Your task to perform on an android device: change alarm snooze length Image 0: 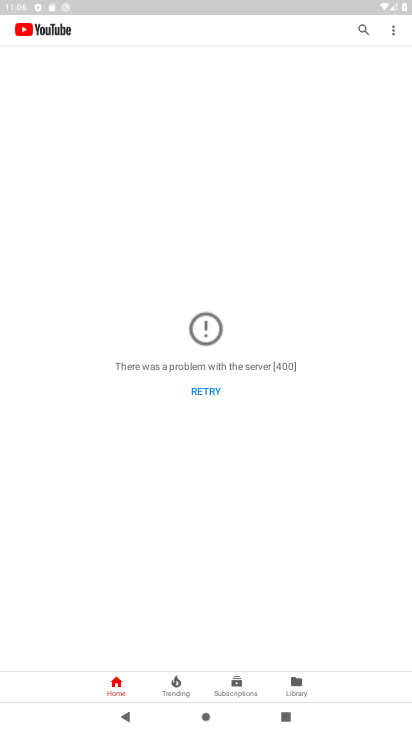
Step 0: press home button
Your task to perform on an android device: change alarm snooze length Image 1: 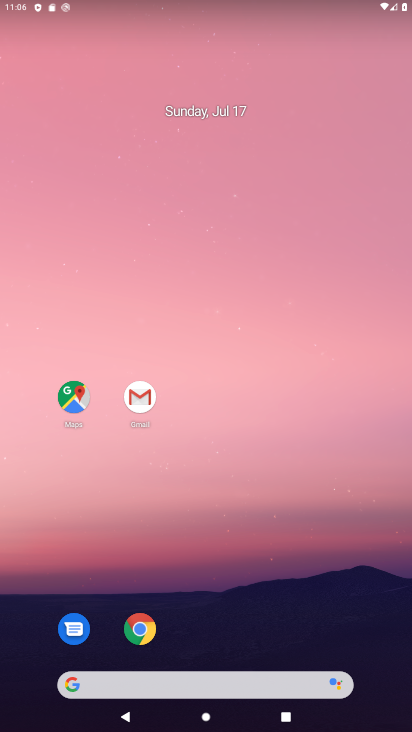
Step 1: drag from (396, 718) to (294, 69)
Your task to perform on an android device: change alarm snooze length Image 2: 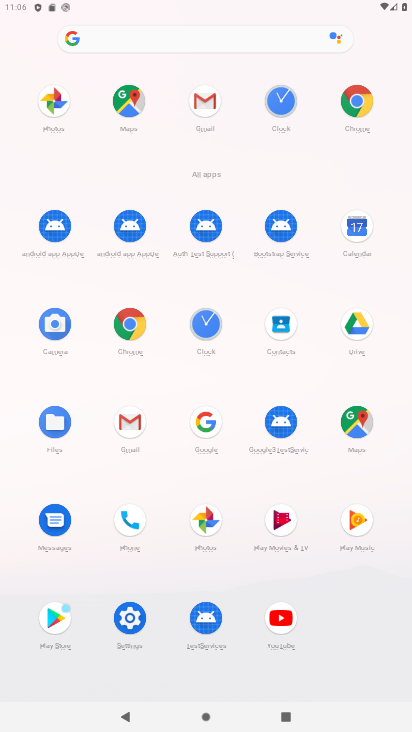
Step 2: click (209, 324)
Your task to perform on an android device: change alarm snooze length Image 3: 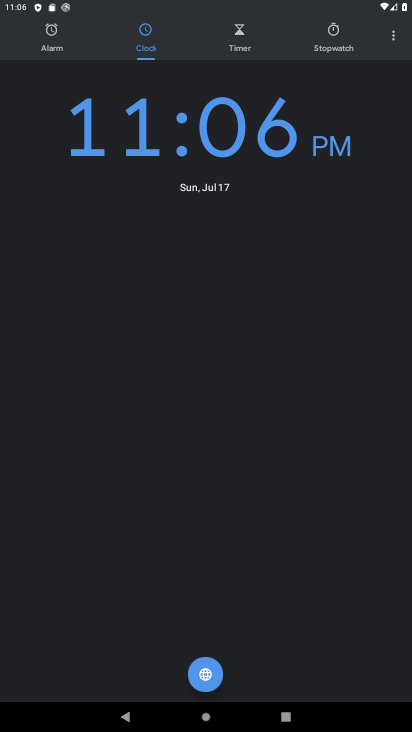
Step 3: click (395, 45)
Your task to perform on an android device: change alarm snooze length Image 4: 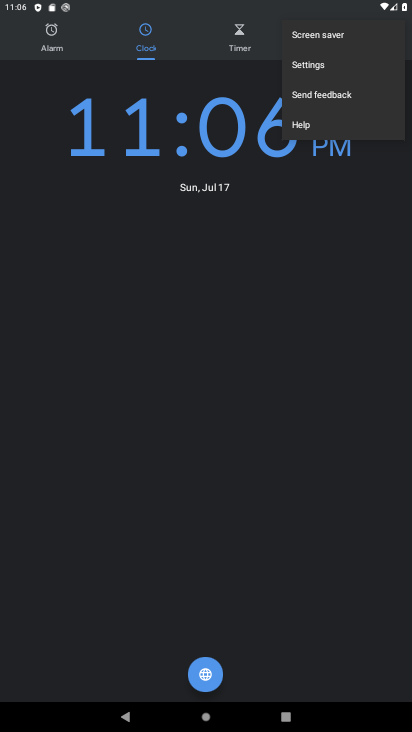
Step 4: click (331, 61)
Your task to perform on an android device: change alarm snooze length Image 5: 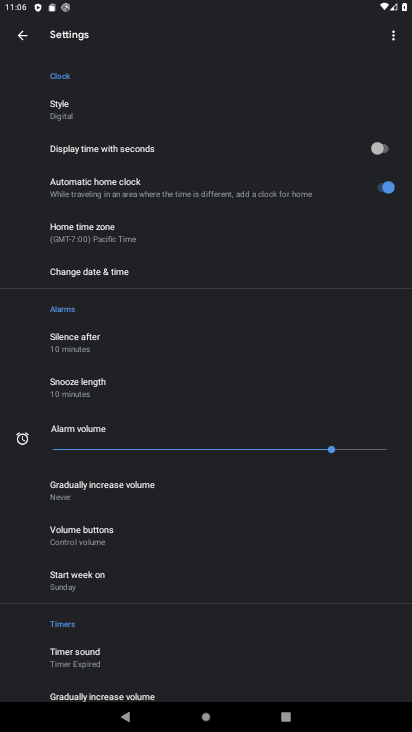
Step 5: drag from (139, 662) to (98, 300)
Your task to perform on an android device: change alarm snooze length Image 6: 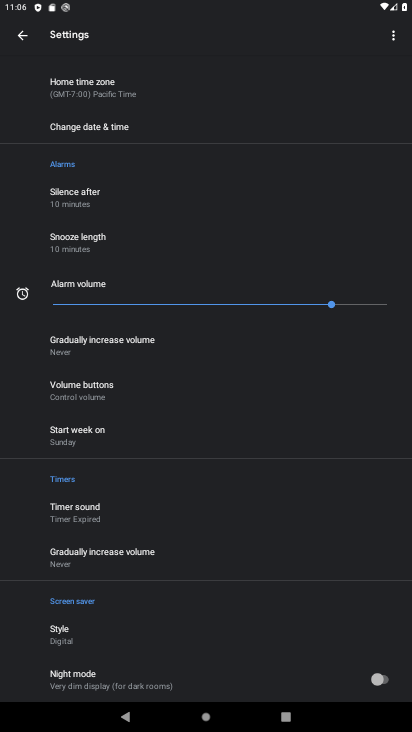
Step 6: click (79, 244)
Your task to perform on an android device: change alarm snooze length Image 7: 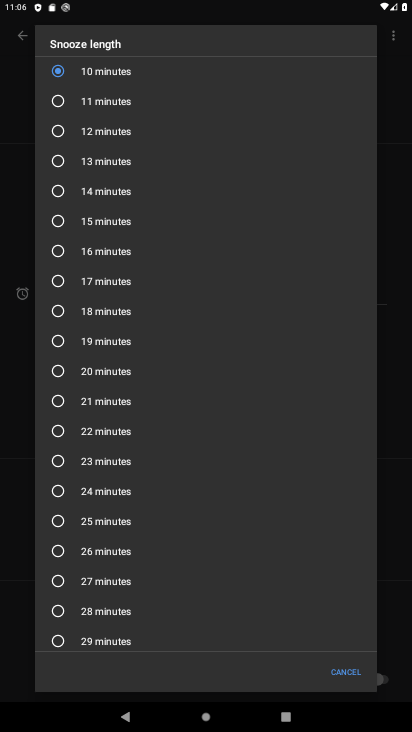
Step 7: click (54, 211)
Your task to perform on an android device: change alarm snooze length Image 8: 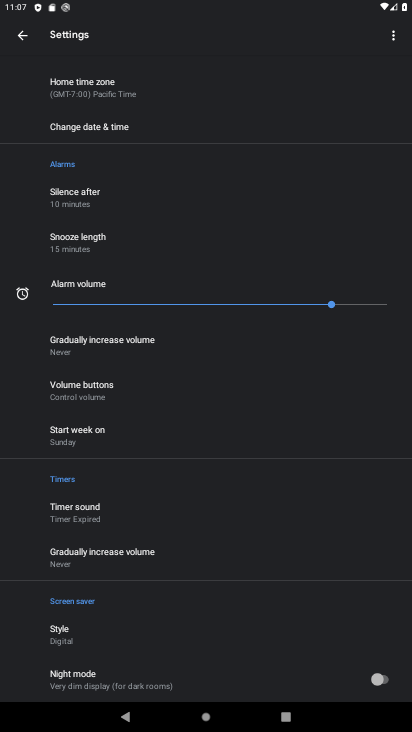
Step 8: task complete